Your task to perform on an android device: toggle translation in the chrome app Image 0: 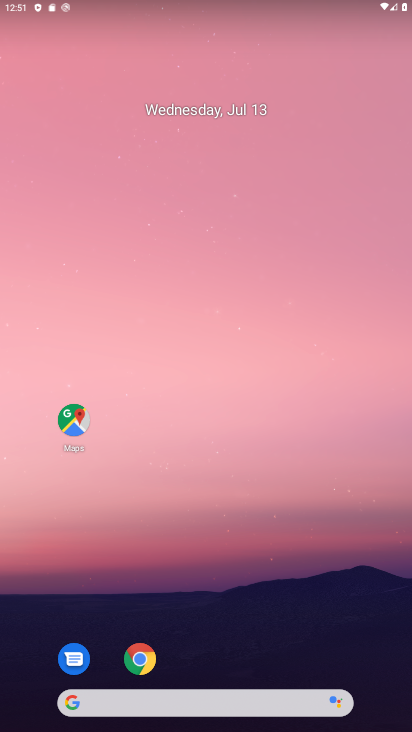
Step 0: click (145, 642)
Your task to perform on an android device: toggle translation in the chrome app Image 1: 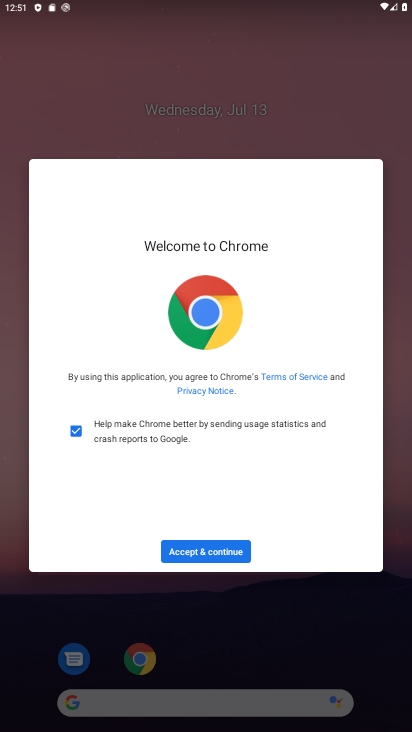
Step 1: click (210, 548)
Your task to perform on an android device: toggle translation in the chrome app Image 2: 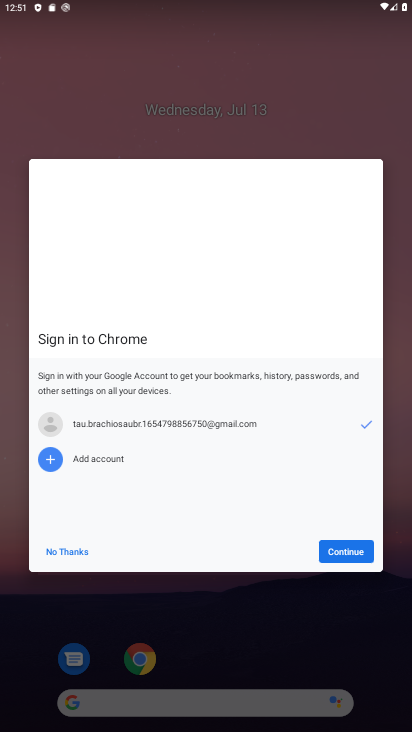
Step 2: click (353, 558)
Your task to perform on an android device: toggle translation in the chrome app Image 3: 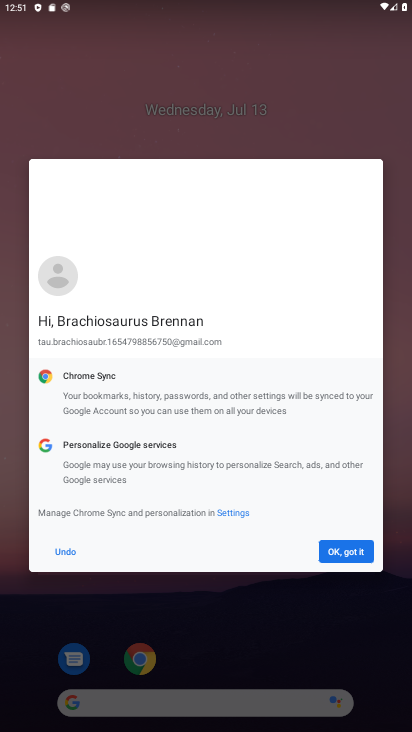
Step 3: click (357, 555)
Your task to perform on an android device: toggle translation in the chrome app Image 4: 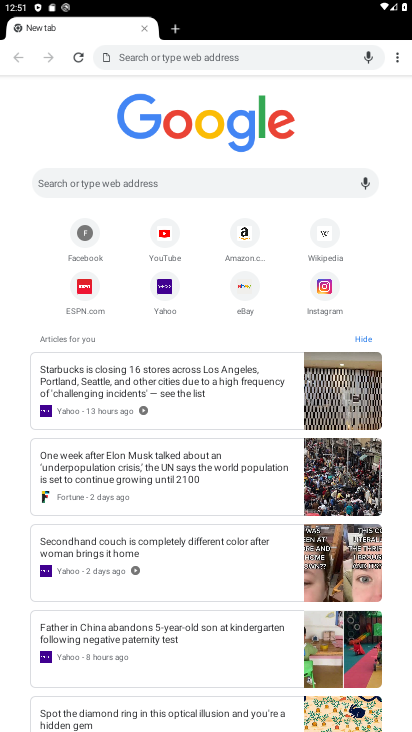
Step 4: click (403, 54)
Your task to perform on an android device: toggle translation in the chrome app Image 5: 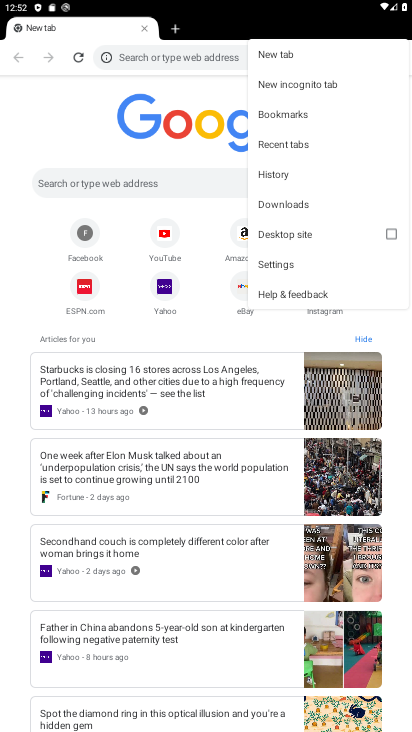
Step 5: click (282, 259)
Your task to perform on an android device: toggle translation in the chrome app Image 6: 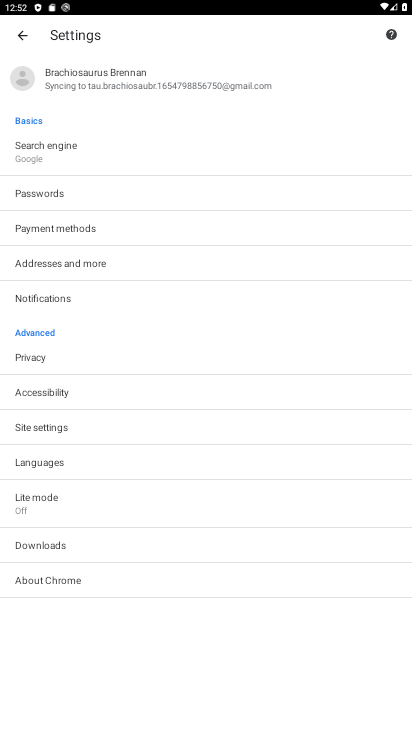
Step 6: click (59, 459)
Your task to perform on an android device: toggle translation in the chrome app Image 7: 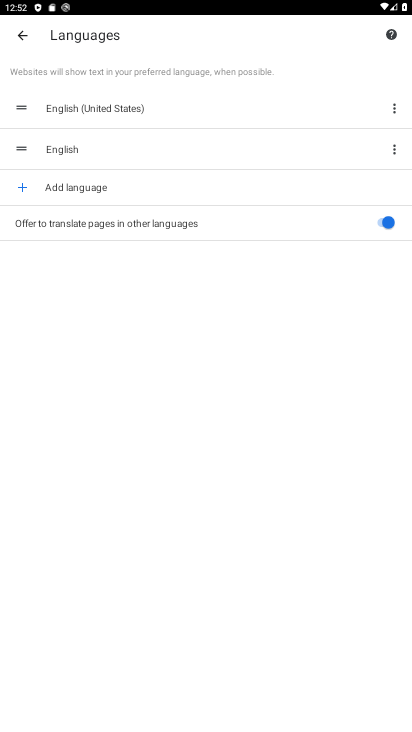
Step 7: click (392, 217)
Your task to perform on an android device: toggle translation in the chrome app Image 8: 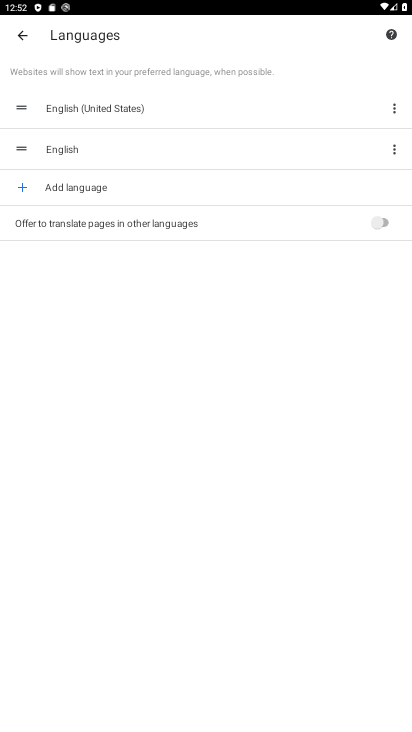
Step 8: task complete